Your task to perform on an android device: What is the news today? Image 0: 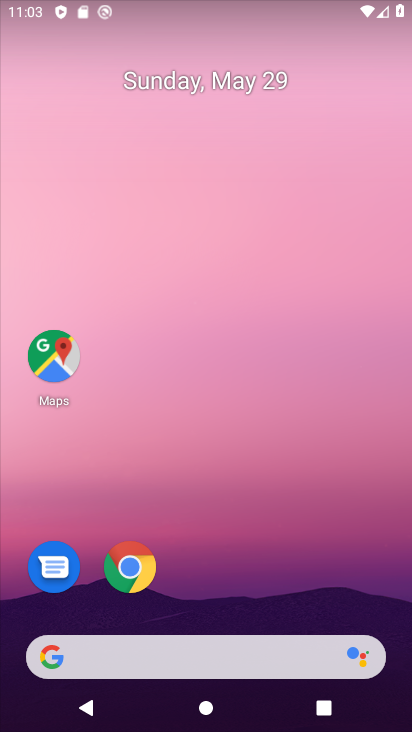
Step 0: click (203, 646)
Your task to perform on an android device: What is the news today? Image 1: 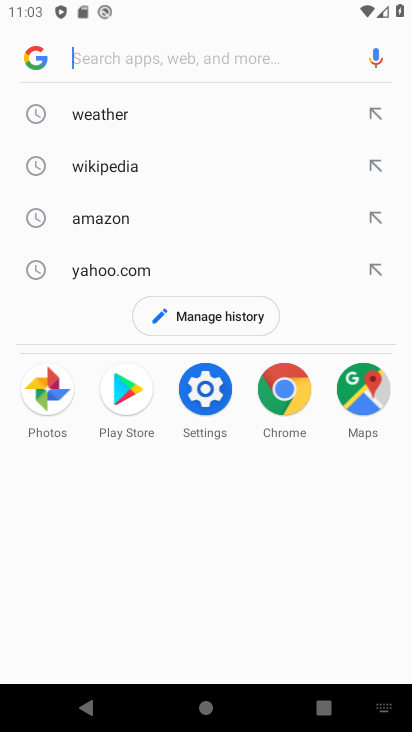
Step 1: type "news"
Your task to perform on an android device: What is the news today? Image 2: 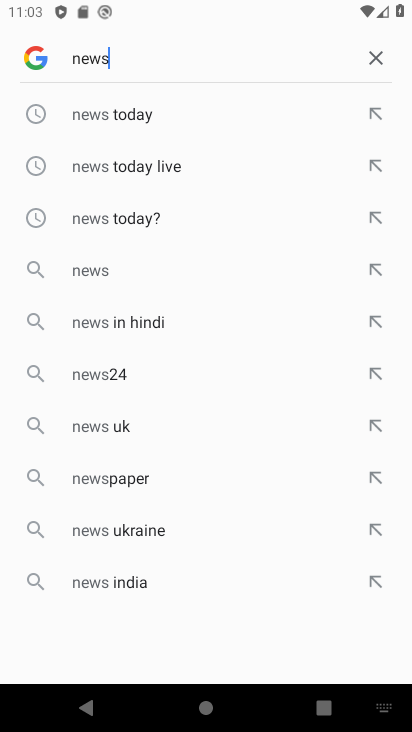
Step 2: click (125, 106)
Your task to perform on an android device: What is the news today? Image 3: 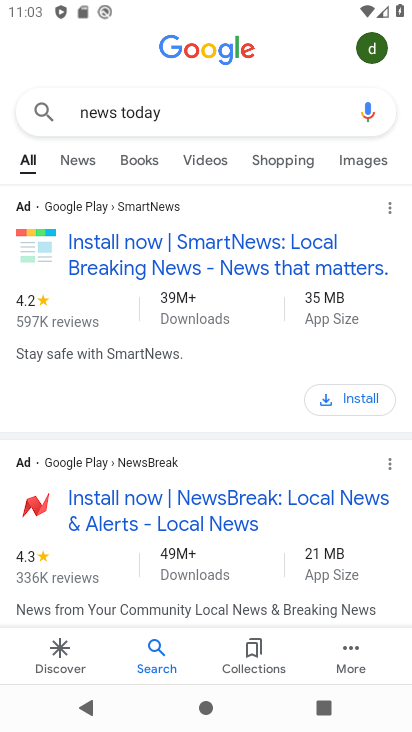
Step 3: click (59, 155)
Your task to perform on an android device: What is the news today? Image 4: 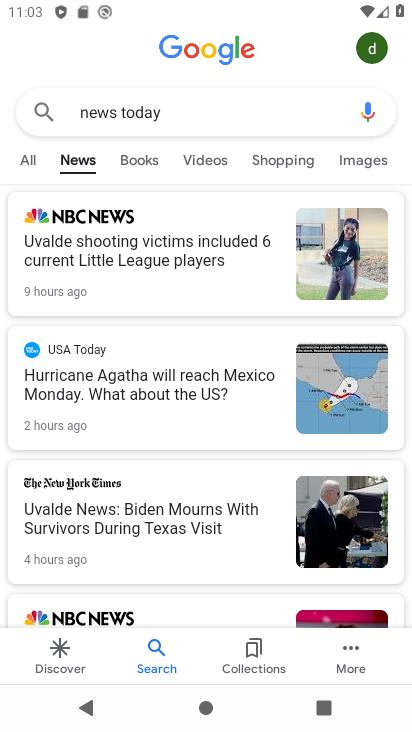
Step 4: task complete